Your task to perform on an android device: Go to Google Image 0: 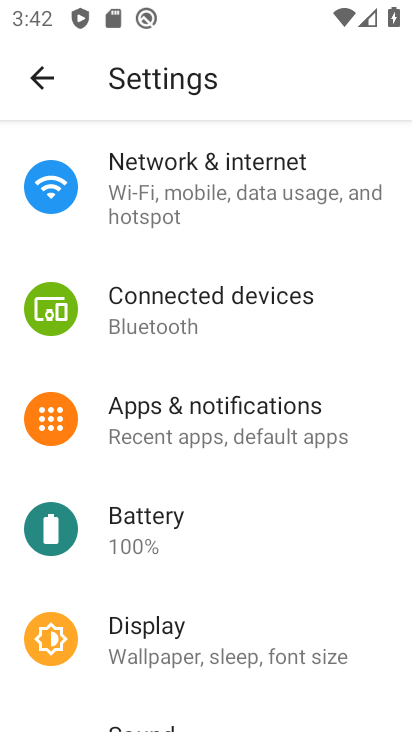
Step 0: press home button
Your task to perform on an android device: Go to Google Image 1: 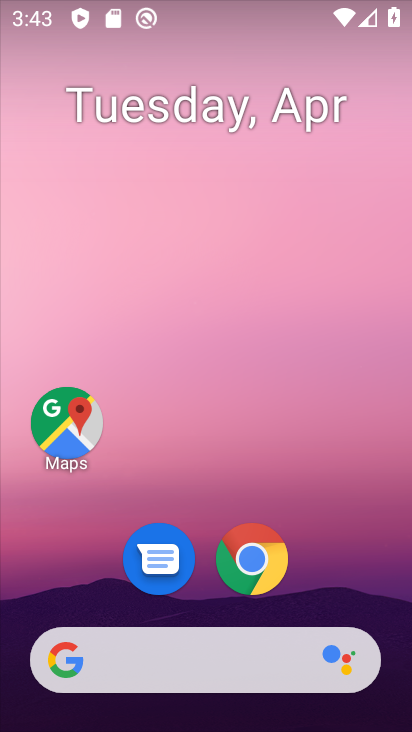
Step 1: drag from (362, 277) to (358, 187)
Your task to perform on an android device: Go to Google Image 2: 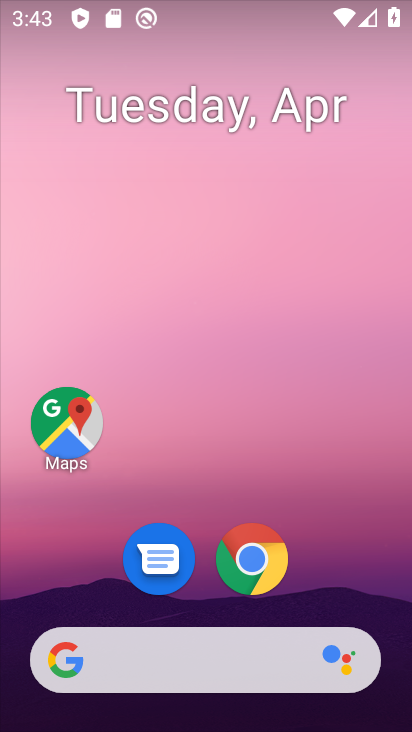
Step 2: drag from (381, 408) to (358, 143)
Your task to perform on an android device: Go to Google Image 3: 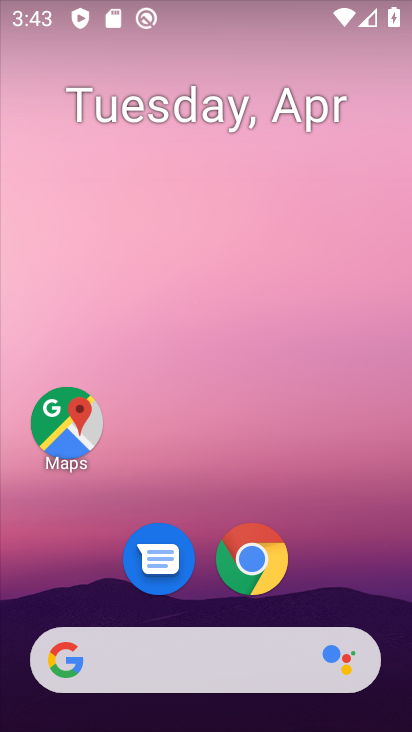
Step 3: drag from (382, 599) to (369, 100)
Your task to perform on an android device: Go to Google Image 4: 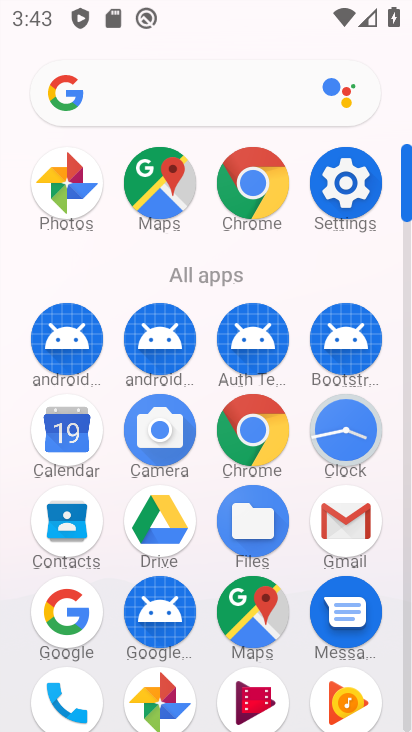
Step 4: click (74, 615)
Your task to perform on an android device: Go to Google Image 5: 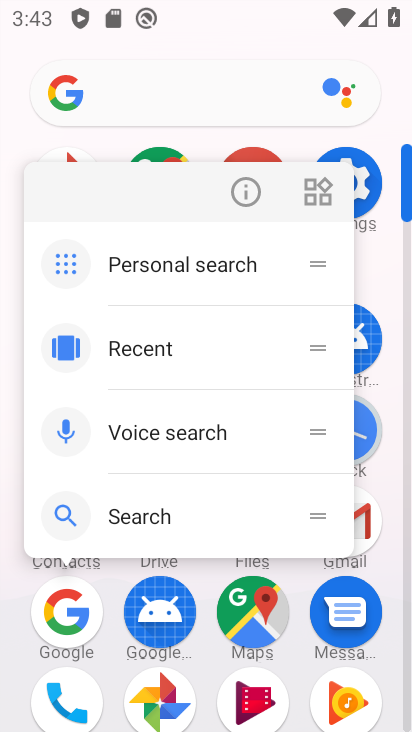
Step 5: click (62, 607)
Your task to perform on an android device: Go to Google Image 6: 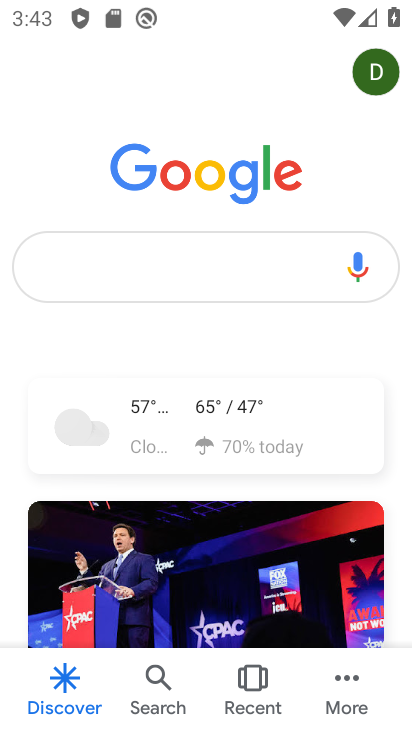
Step 6: click (97, 279)
Your task to perform on an android device: Go to Google Image 7: 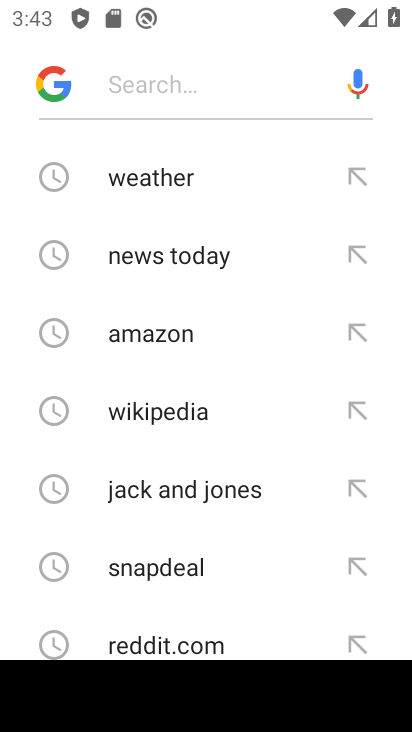
Step 7: task complete